Your task to perform on an android device: Open my contact list Image 0: 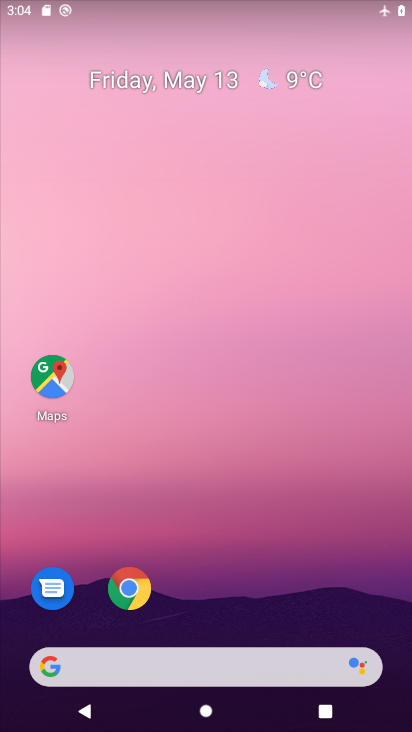
Step 0: drag from (230, 611) to (125, 165)
Your task to perform on an android device: Open my contact list Image 1: 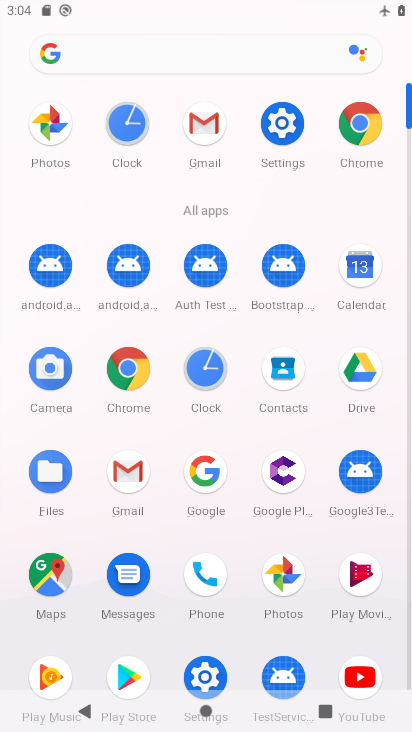
Step 1: click (277, 377)
Your task to perform on an android device: Open my contact list Image 2: 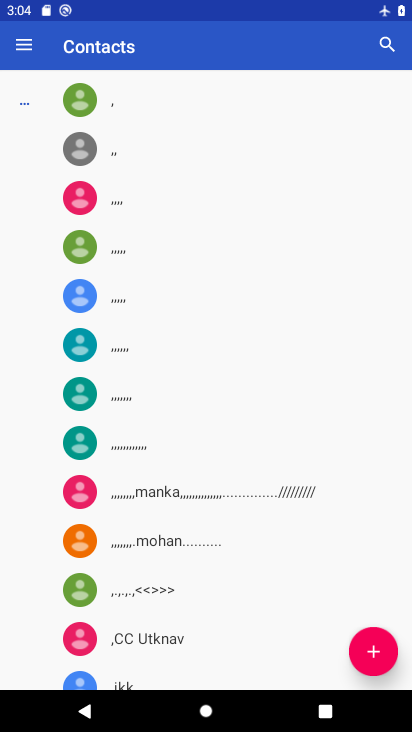
Step 2: drag from (306, 554) to (189, 158)
Your task to perform on an android device: Open my contact list Image 3: 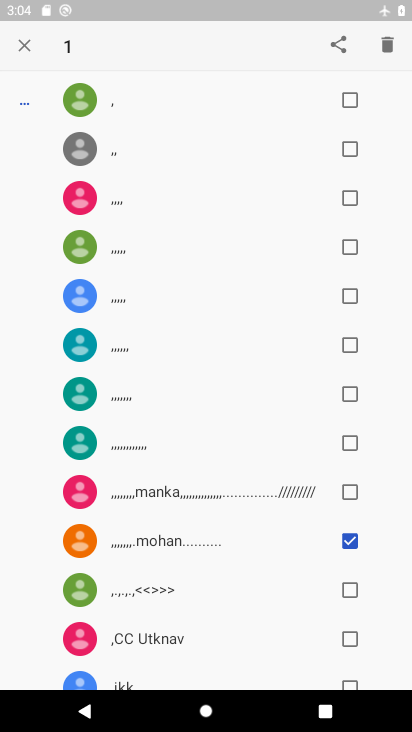
Step 3: click (20, 35)
Your task to perform on an android device: Open my contact list Image 4: 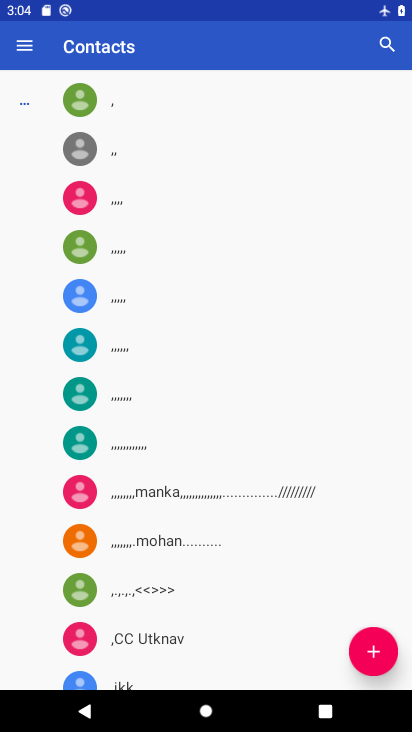
Step 4: task complete